Your task to perform on an android device: open wifi settings Image 0: 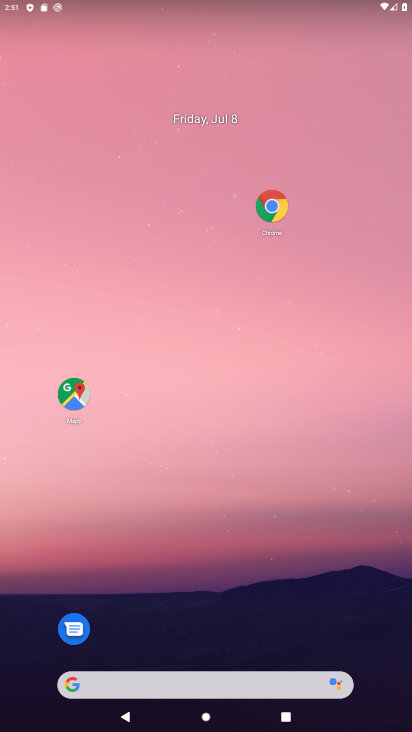
Step 0: drag from (173, 564) to (186, 93)
Your task to perform on an android device: open wifi settings Image 1: 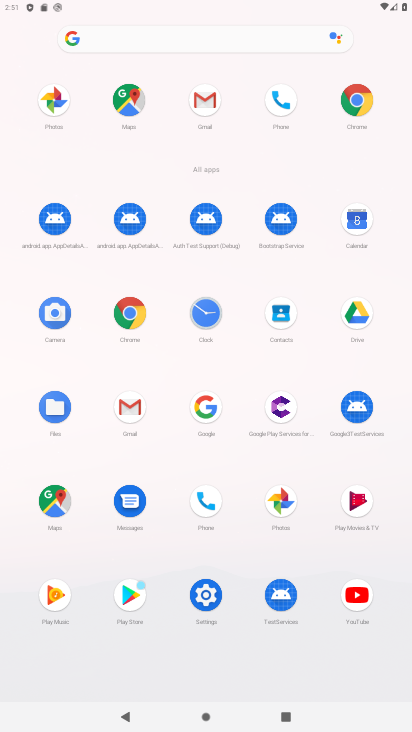
Step 1: click (197, 591)
Your task to perform on an android device: open wifi settings Image 2: 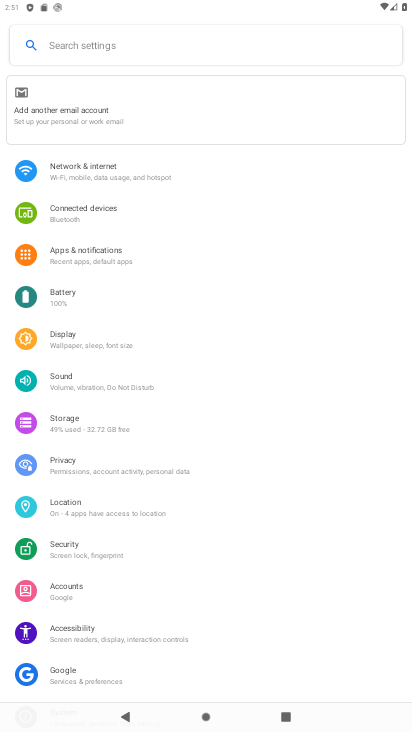
Step 2: click (97, 171)
Your task to perform on an android device: open wifi settings Image 3: 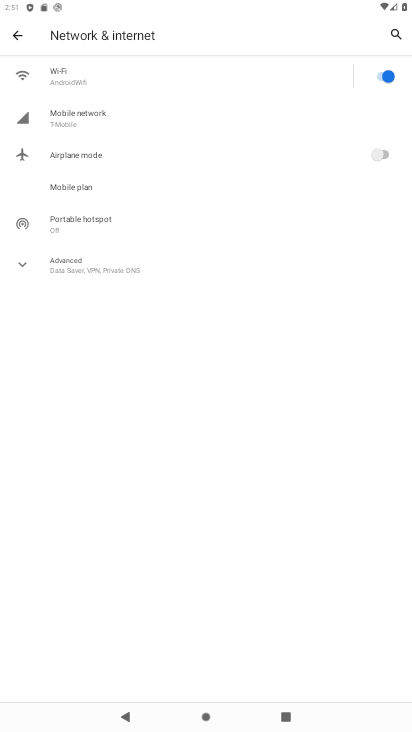
Step 3: drag from (160, 576) to (202, 319)
Your task to perform on an android device: open wifi settings Image 4: 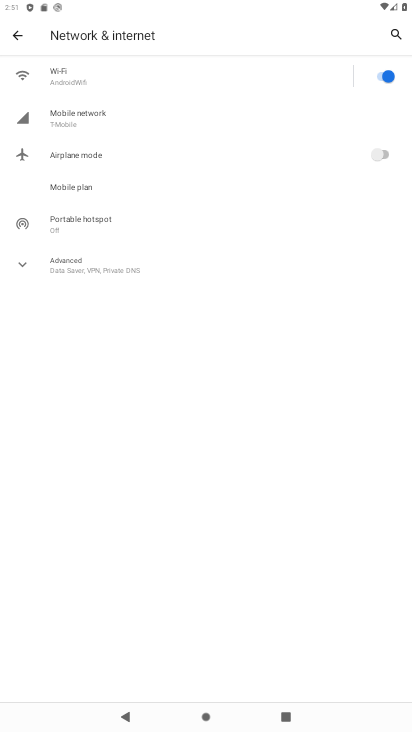
Step 4: drag from (196, 593) to (184, 382)
Your task to perform on an android device: open wifi settings Image 5: 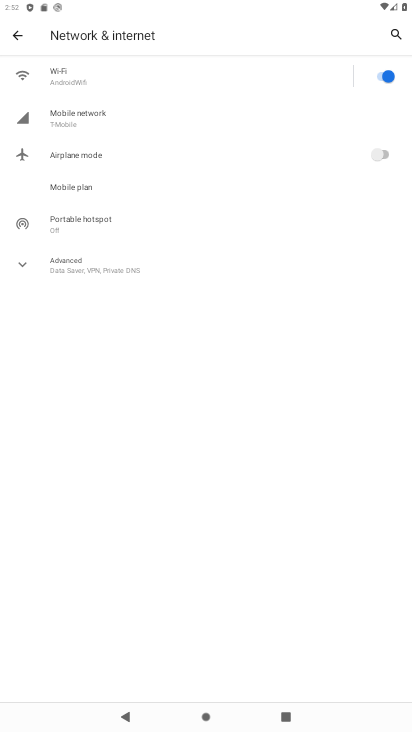
Step 5: click (116, 73)
Your task to perform on an android device: open wifi settings Image 6: 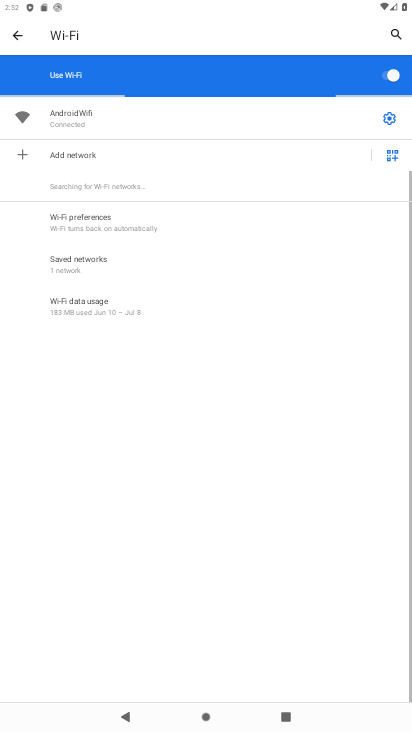
Step 6: click (388, 124)
Your task to perform on an android device: open wifi settings Image 7: 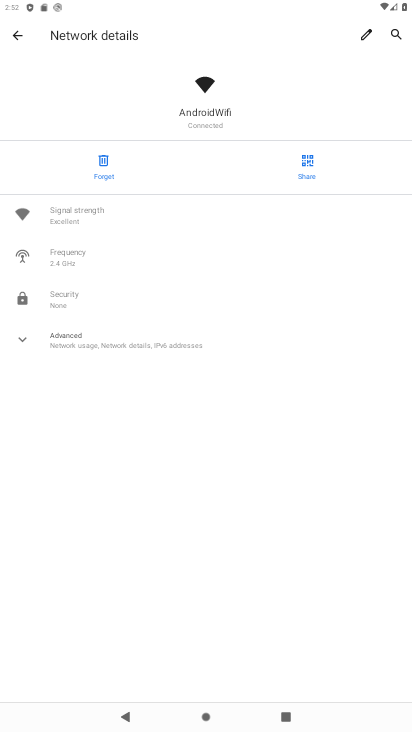
Step 7: task complete